Your task to perform on an android device: Add bose soundlink mini to the cart on walmart, then select checkout. Image 0: 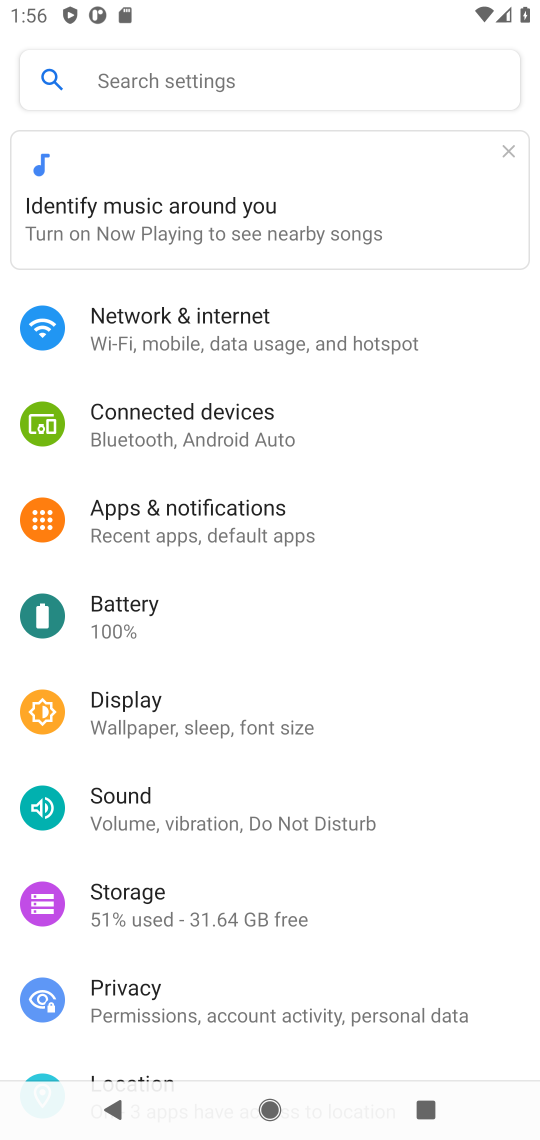
Step 0: press home button
Your task to perform on an android device: Add bose soundlink mini to the cart on walmart, then select checkout. Image 1: 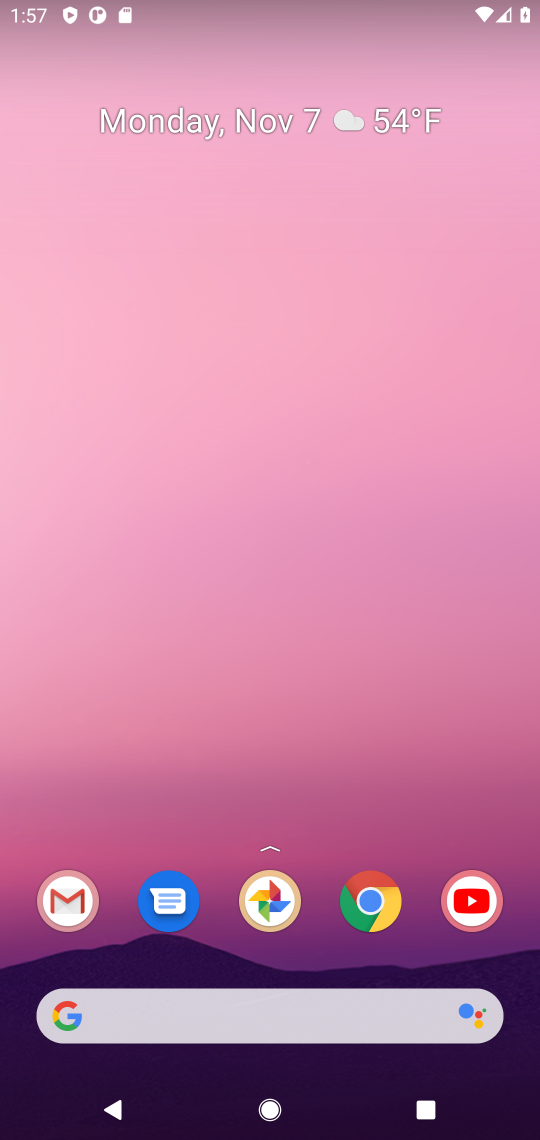
Step 1: click (367, 905)
Your task to perform on an android device: Add bose soundlink mini to the cart on walmart, then select checkout. Image 2: 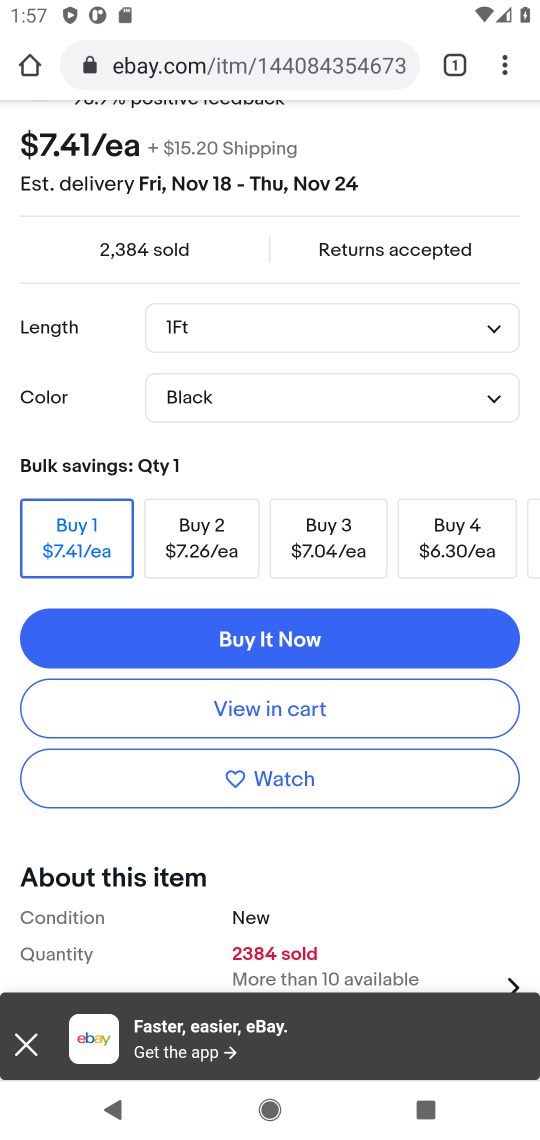
Step 2: click (223, 58)
Your task to perform on an android device: Add bose soundlink mini to the cart on walmart, then select checkout. Image 3: 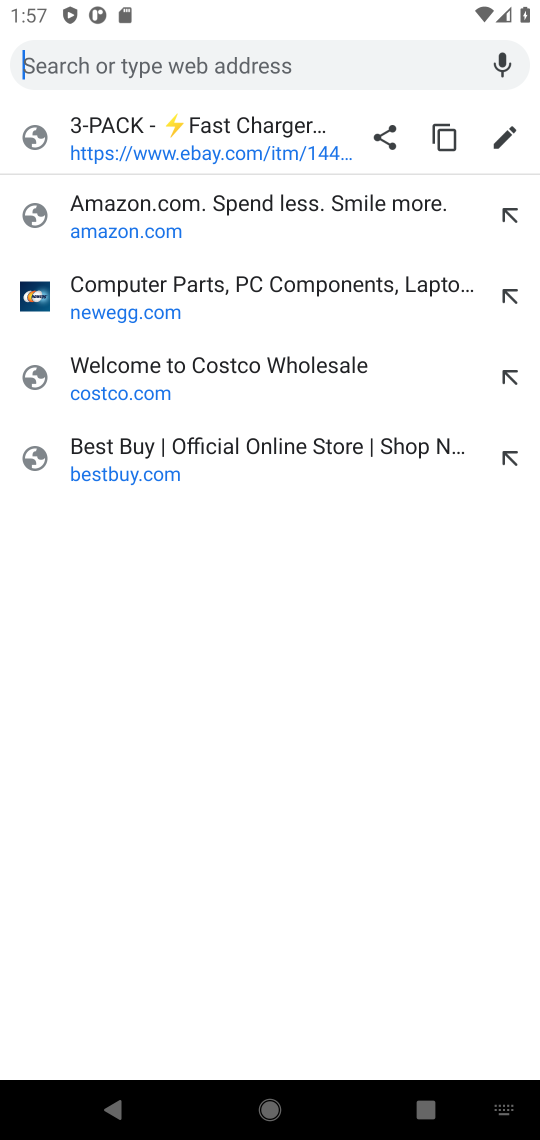
Step 3: type "walmart.com"
Your task to perform on an android device: Add bose soundlink mini to the cart on walmart, then select checkout. Image 4: 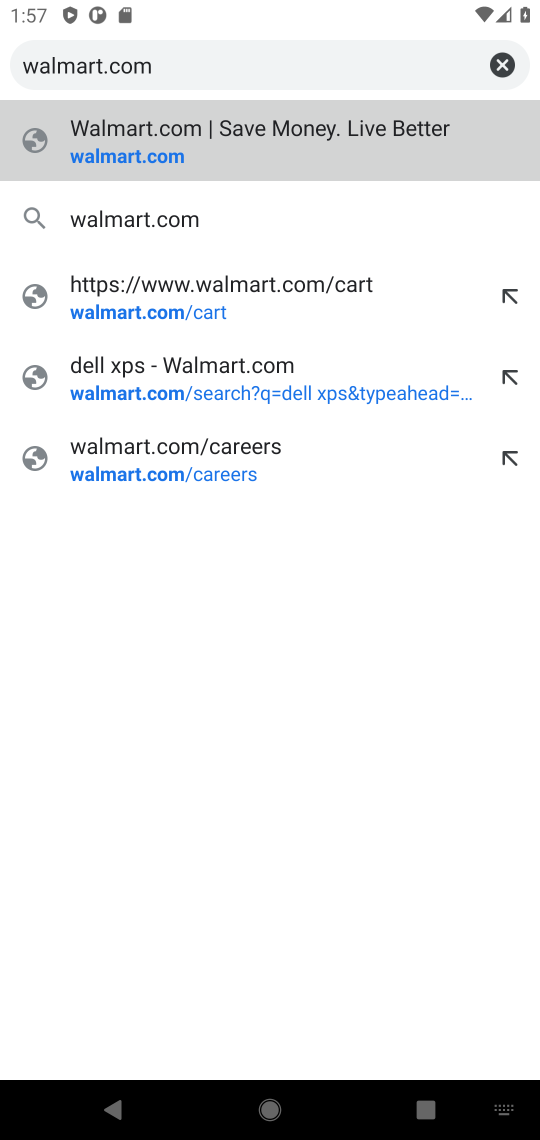
Step 4: click (96, 160)
Your task to perform on an android device: Add bose soundlink mini to the cart on walmart, then select checkout. Image 5: 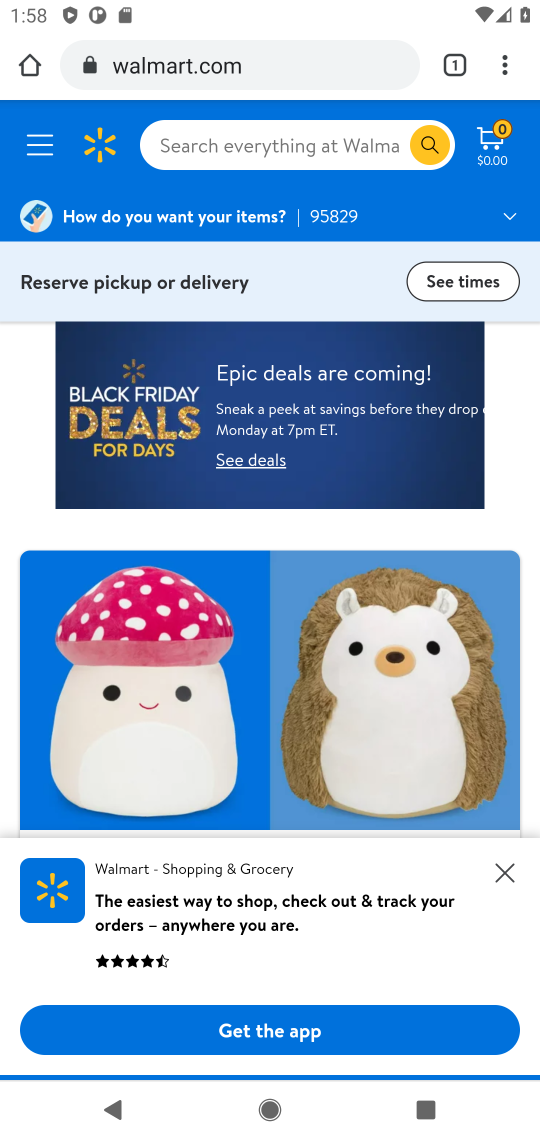
Step 5: click (206, 151)
Your task to perform on an android device: Add bose soundlink mini to the cart on walmart, then select checkout. Image 6: 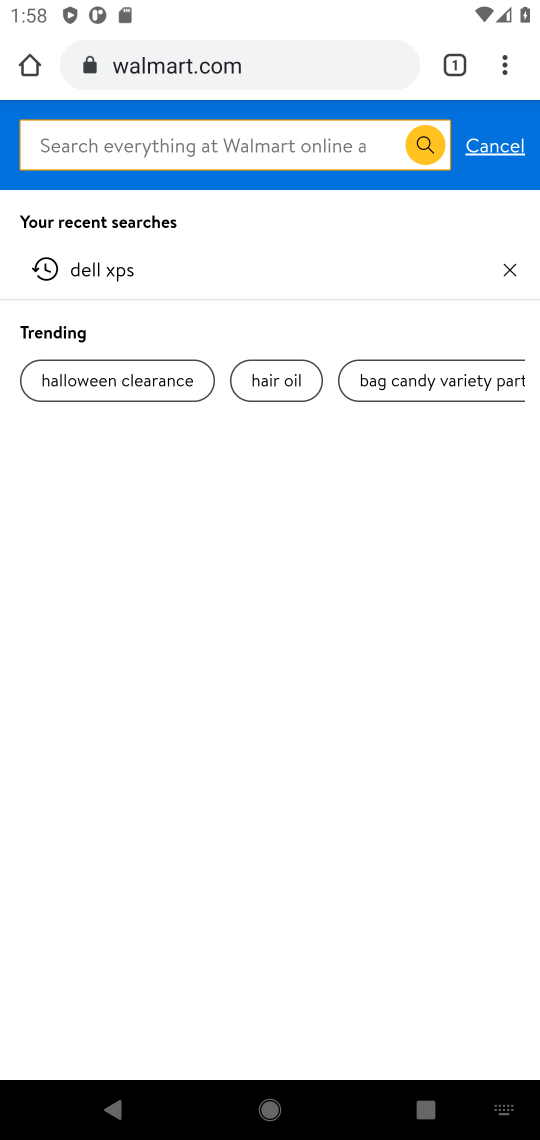
Step 6: type "bose soundlink mini"
Your task to perform on an android device: Add bose soundlink mini to the cart on walmart, then select checkout. Image 7: 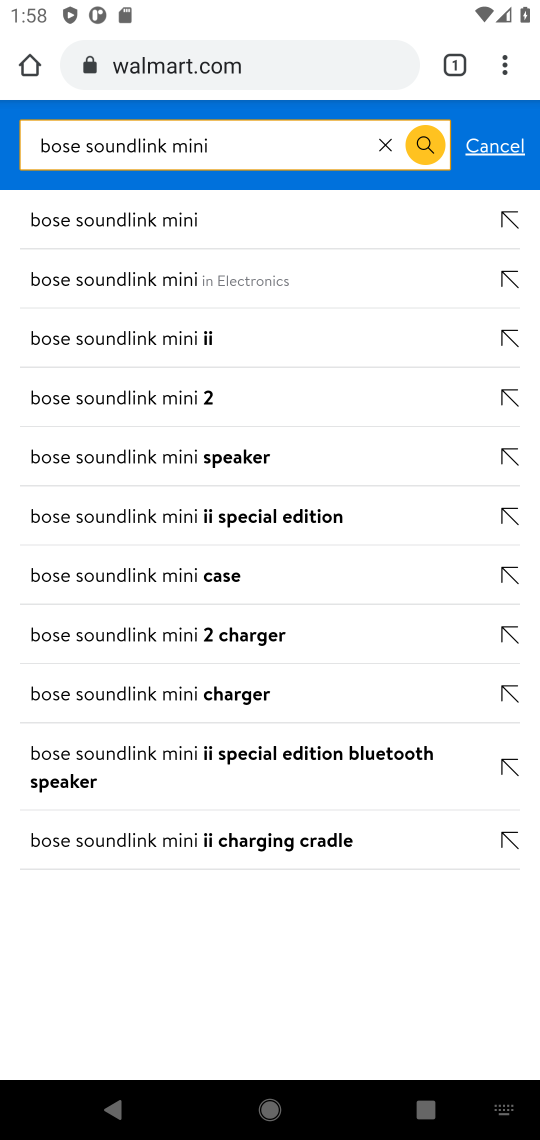
Step 7: click (109, 227)
Your task to perform on an android device: Add bose soundlink mini to the cart on walmart, then select checkout. Image 8: 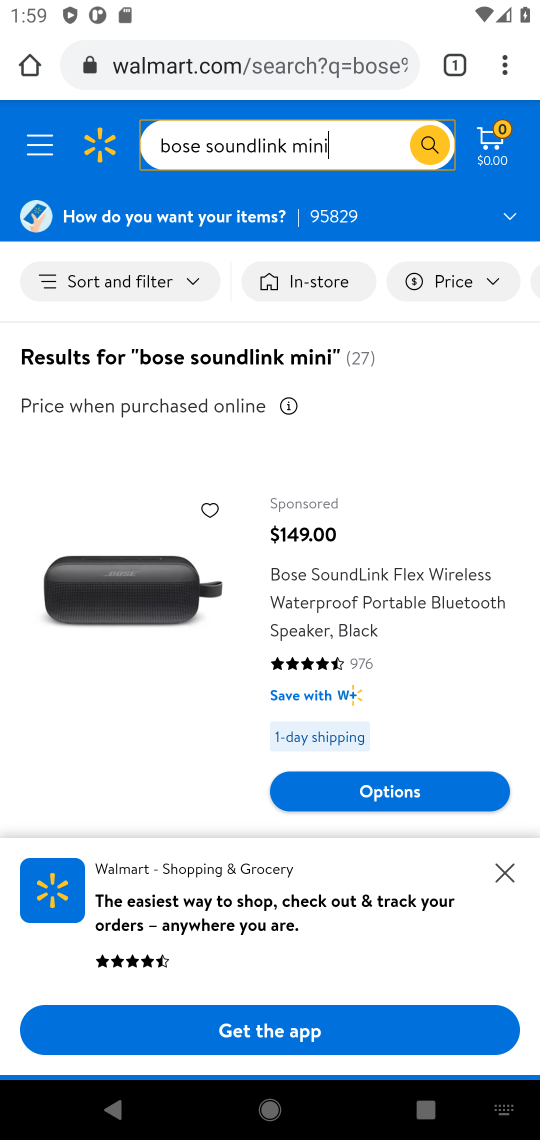
Step 8: task complete